Your task to perform on an android device: Go to battery settings Image 0: 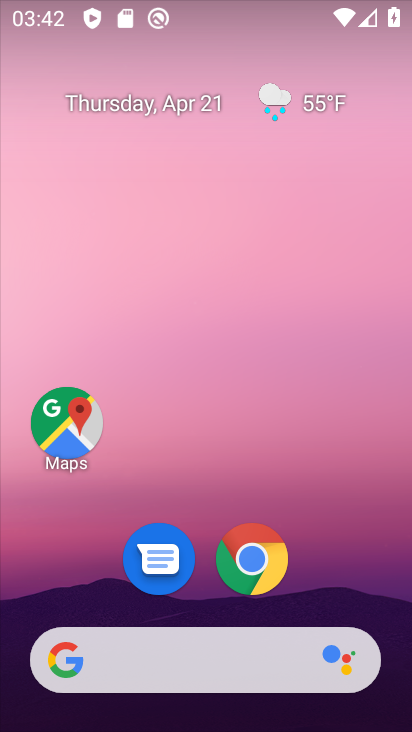
Step 0: drag from (352, 517) to (52, 268)
Your task to perform on an android device: Go to battery settings Image 1: 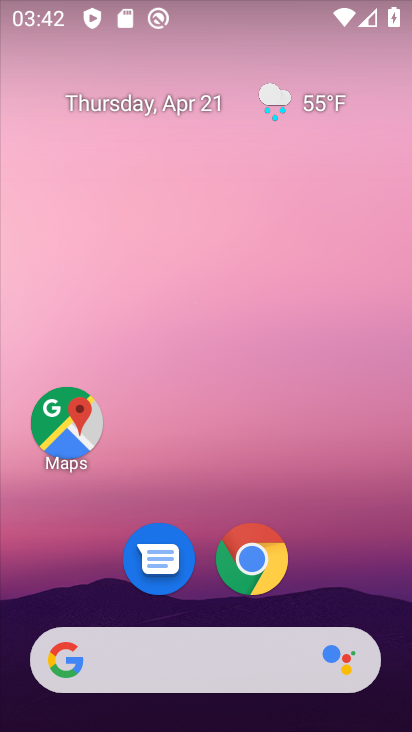
Step 1: drag from (200, 476) to (6, 11)
Your task to perform on an android device: Go to battery settings Image 2: 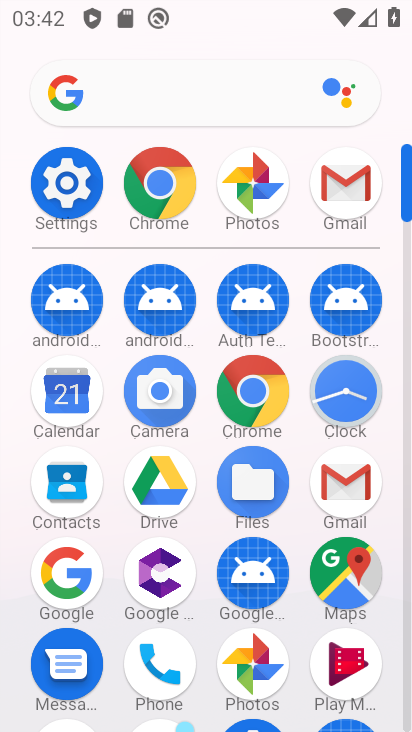
Step 2: click (71, 180)
Your task to perform on an android device: Go to battery settings Image 3: 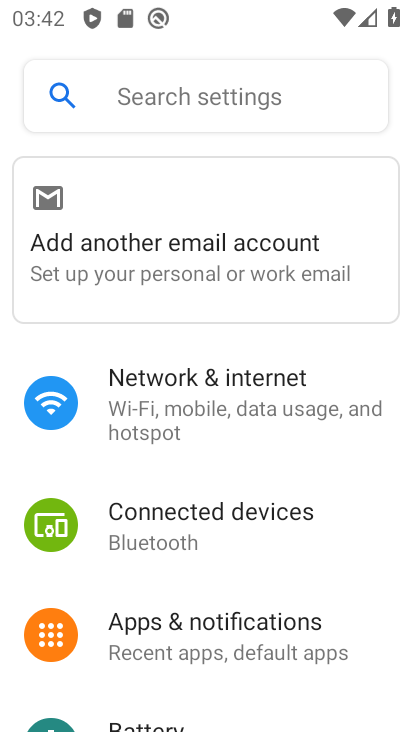
Step 3: drag from (208, 549) to (171, 292)
Your task to perform on an android device: Go to battery settings Image 4: 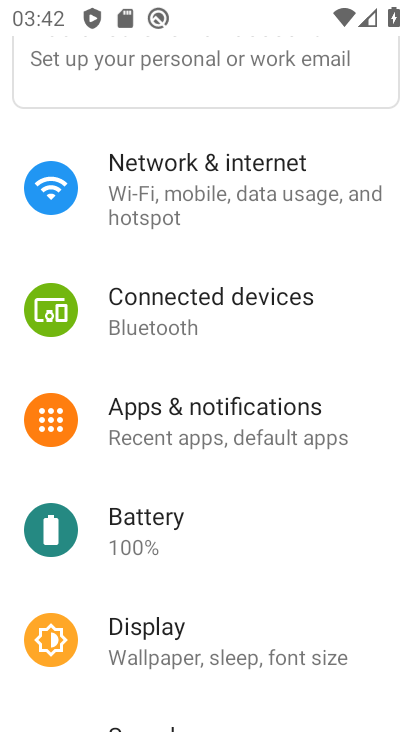
Step 4: click (155, 510)
Your task to perform on an android device: Go to battery settings Image 5: 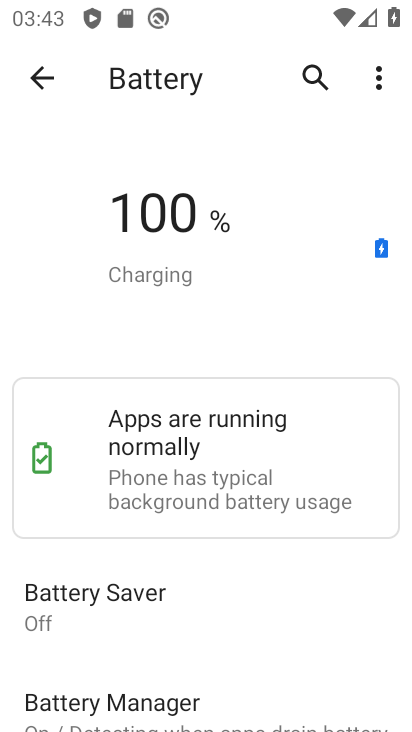
Step 5: task complete